Your task to perform on an android device: Open wifi settings Image 0: 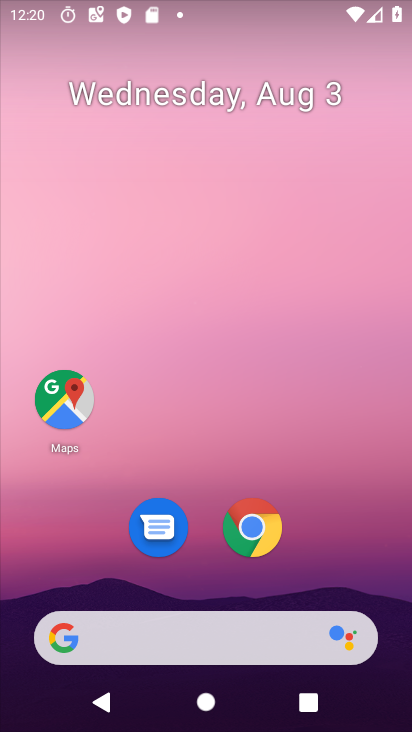
Step 0: drag from (232, 514) to (281, 20)
Your task to perform on an android device: Open wifi settings Image 1: 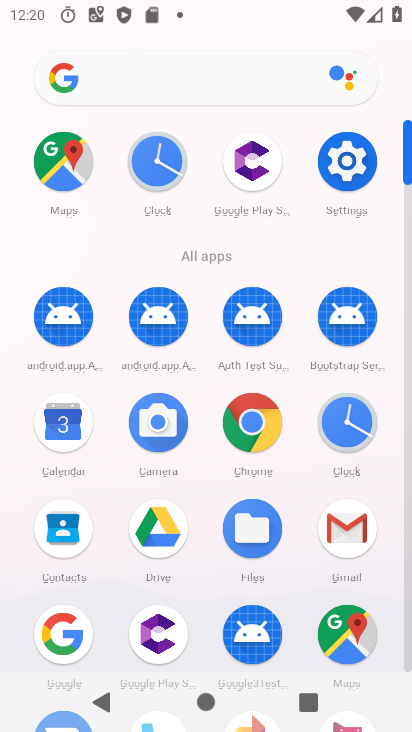
Step 1: click (348, 161)
Your task to perform on an android device: Open wifi settings Image 2: 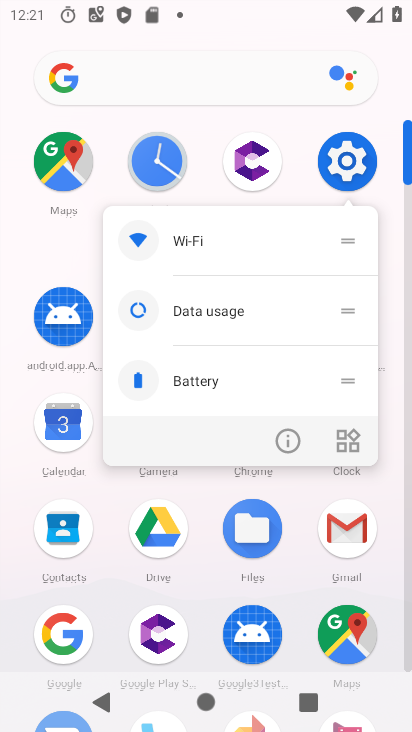
Step 2: click (345, 171)
Your task to perform on an android device: Open wifi settings Image 3: 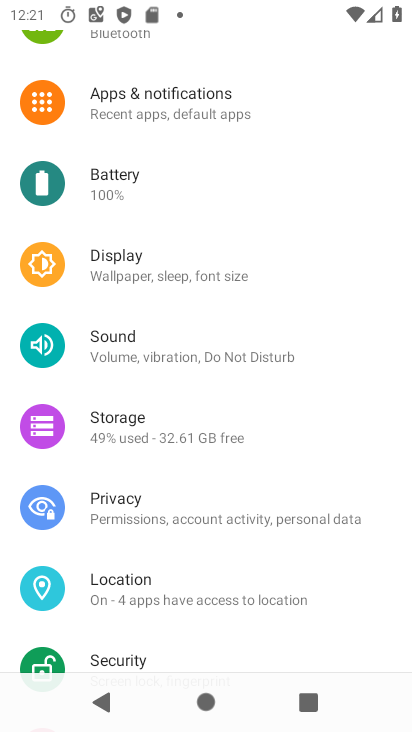
Step 3: drag from (178, 166) to (166, 493)
Your task to perform on an android device: Open wifi settings Image 4: 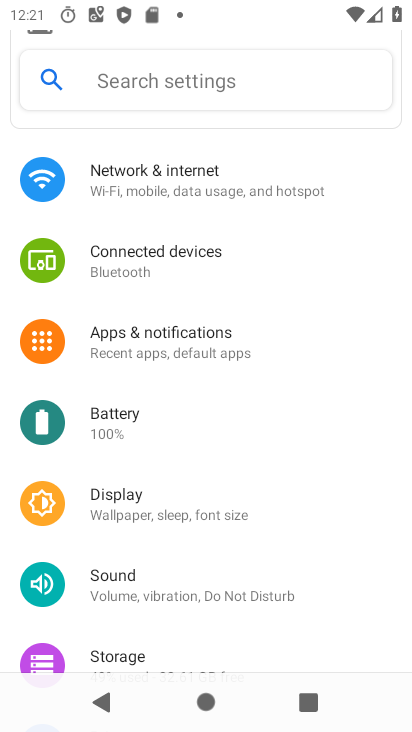
Step 4: click (170, 176)
Your task to perform on an android device: Open wifi settings Image 5: 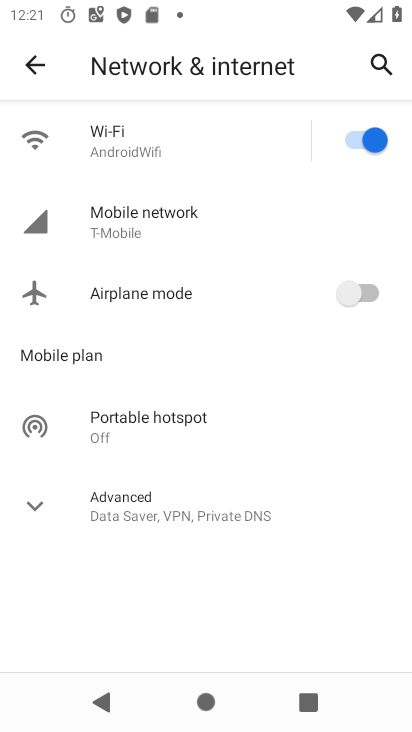
Step 5: click (151, 143)
Your task to perform on an android device: Open wifi settings Image 6: 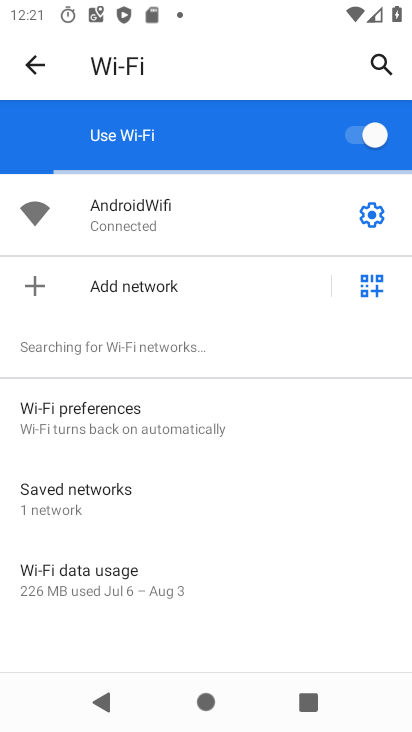
Step 6: task complete